Your task to perform on an android device: Set the phone to "Do not disturb". Image 0: 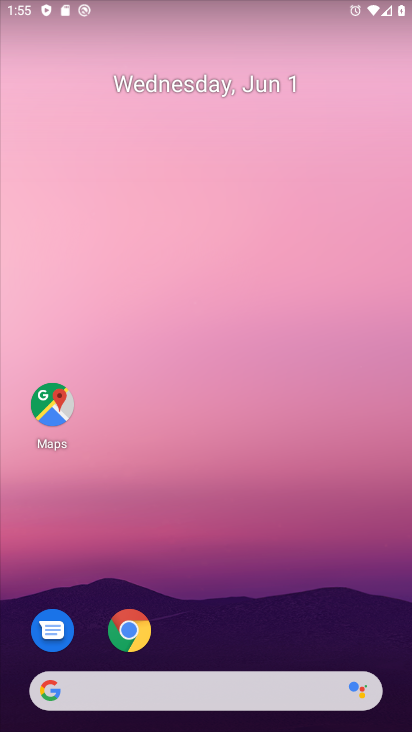
Step 0: drag from (249, 601) to (206, 52)
Your task to perform on an android device: Set the phone to "Do not disturb". Image 1: 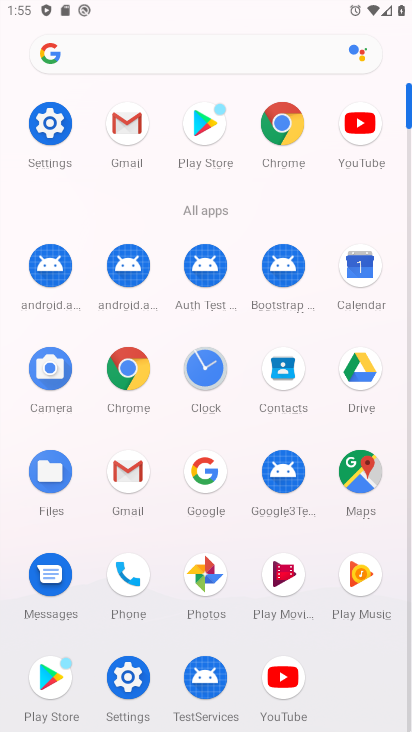
Step 1: click (41, 118)
Your task to perform on an android device: Set the phone to "Do not disturb". Image 2: 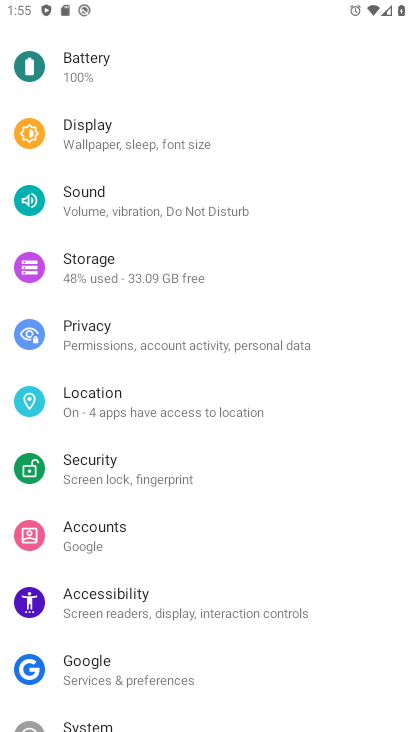
Step 2: drag from (182, 170) to (200, 642)
Your task to perform on an android device: Set the phone to "Do not disturb". Image 3: 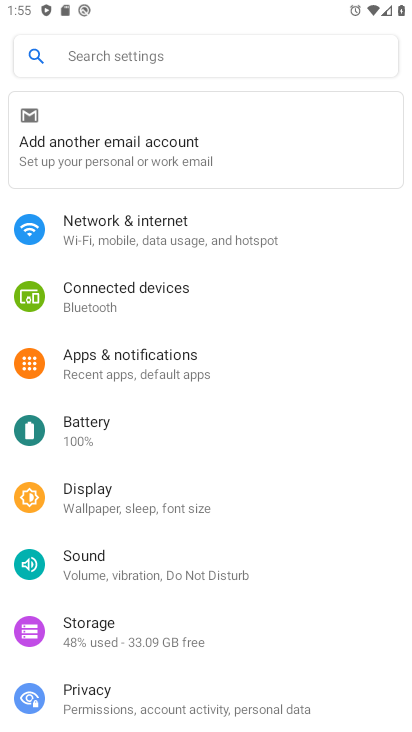
Step 3: click (141, 579)
Your task to perform on an android device: Set the phone to "Do not disturb". Image 4: 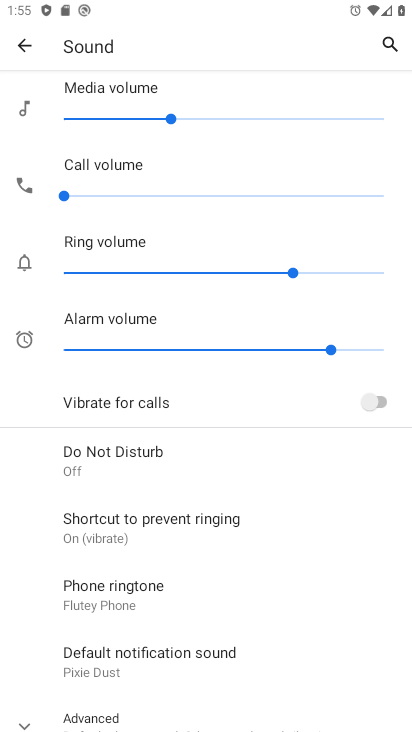
Step 4: click (154, 473)
Your task to perform on an android device: Set the phone to "Do not disturb". Image 5: 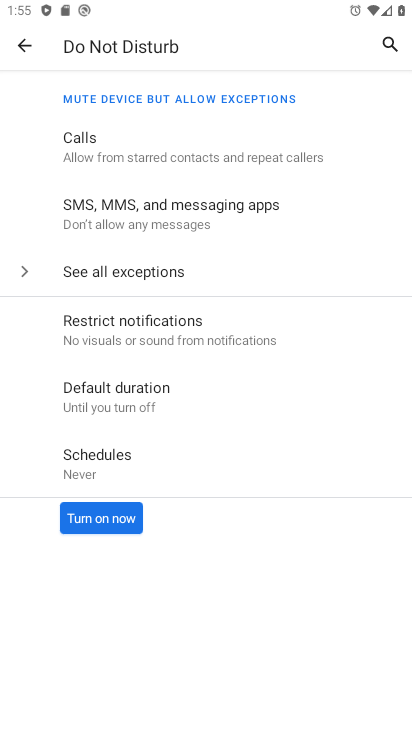
Step 5: click (118, 516)
Your task to perform on an android device: Set the phone to "Do not disturb". Image 6: 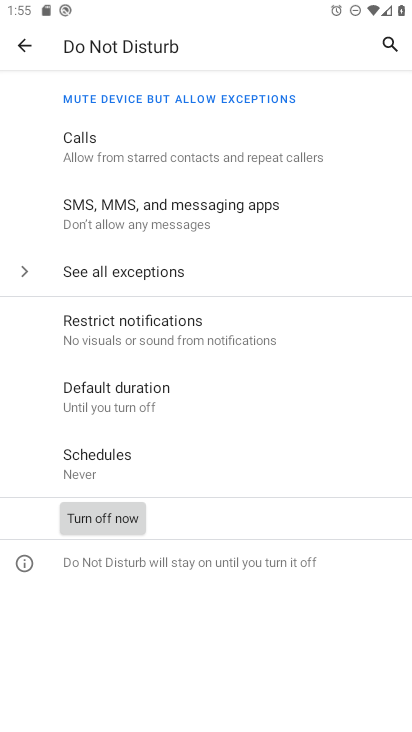
Step 6: task complete